Your task to perform on an android device: Open Youtube and go to "Your channel" Image 0: 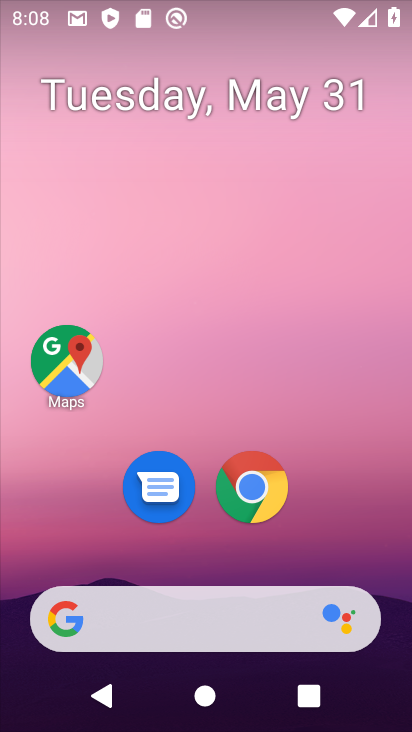
Step 0: drag from (147, 726) to (284, 105)
Your task to perform on an android device: Open Youtube and go to "Your channel" Image 1: 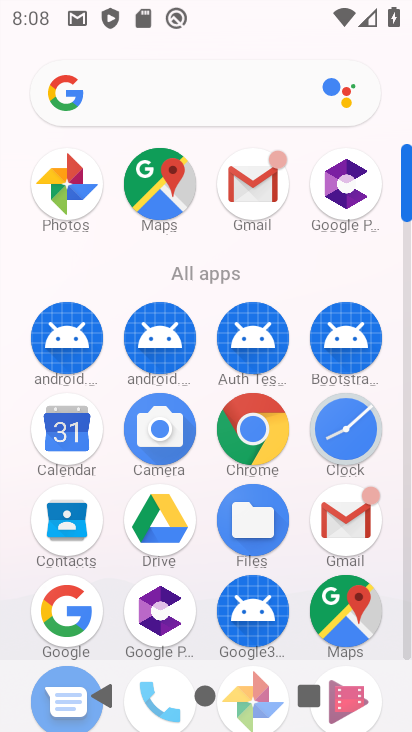
Step 1: drag from (308, 636) to (400, 310)
Your task to perform on an android device: Open Youtube and go to "Your channel" Image 2: 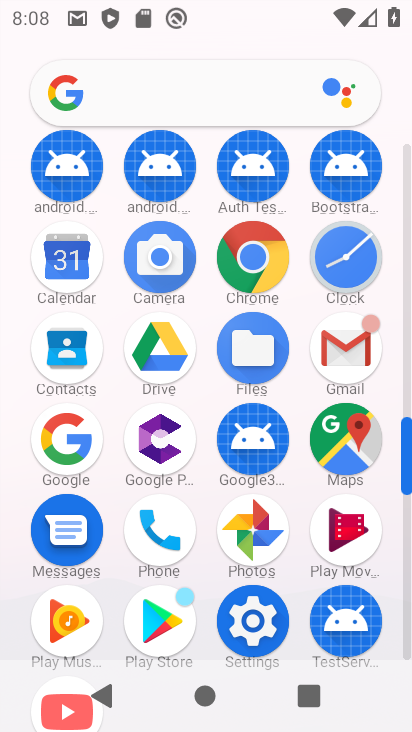
Step 2: drag from (124, 606) to (143, 299)
Your task to perform on an android device: Open Youtube and go to "Your channel" Image 3: 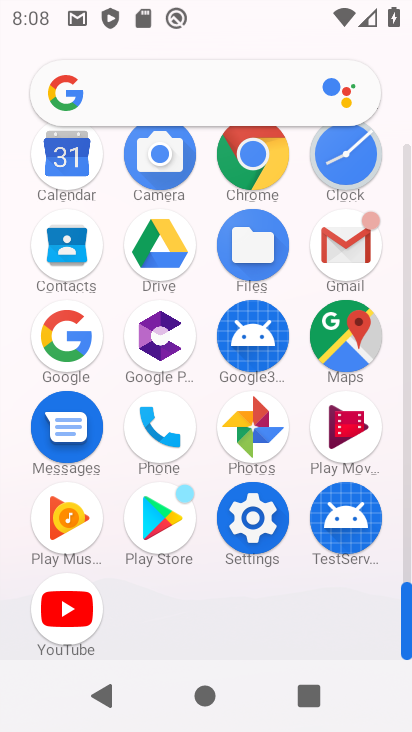
Step 3: click (79, 611)
Your task to perform on an android device: Open Youtube and go to "Your channel" Image 4: 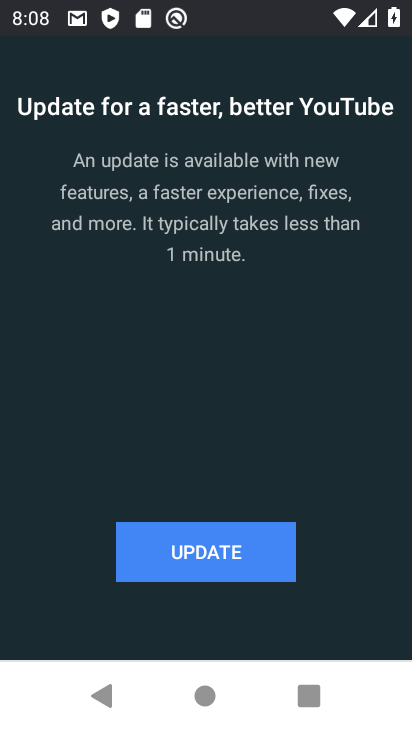
Step 4: click (142, 563)
Your task to perform on an android device: Open Youtube and go to "Your channel" Image 5: 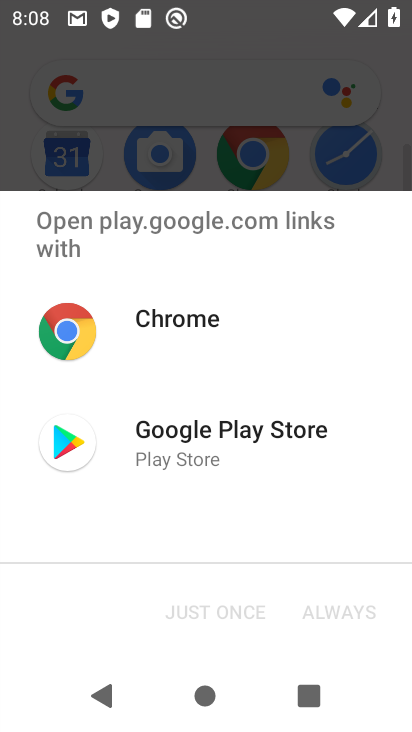
Step 5: click (239, 451)
Your task to perform on an android device: Open Youtube and go to "Your channel" Image 6: 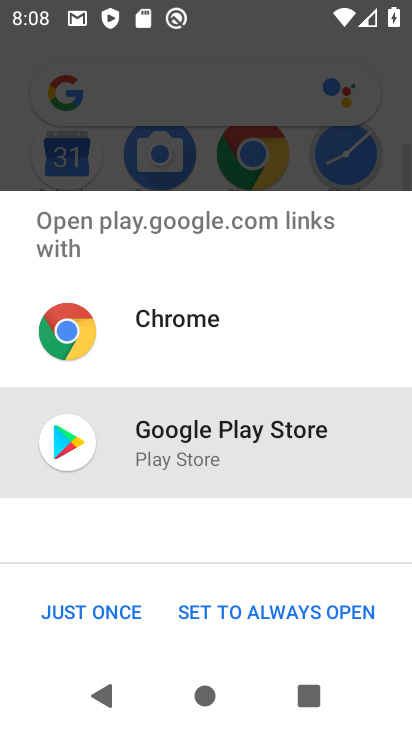
Step 6: click (71, 605)
Your task to perform on an android device: Open Youtube and go to "Your channel" Image 7: 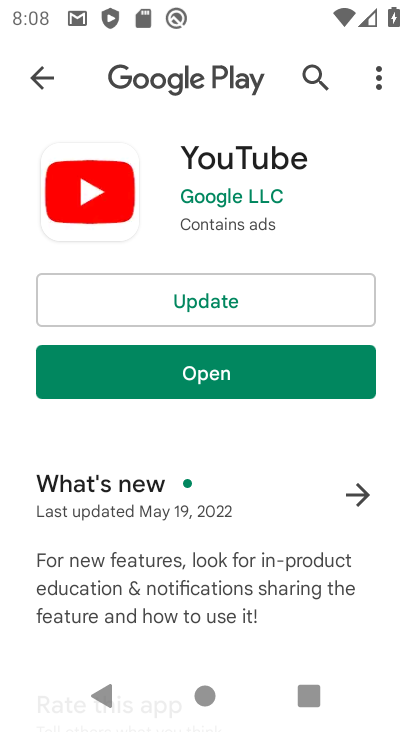
Step 7: click (276, 307)
Your task to perform on an android device: Open Youtube and go to "Your channel" Image 8: 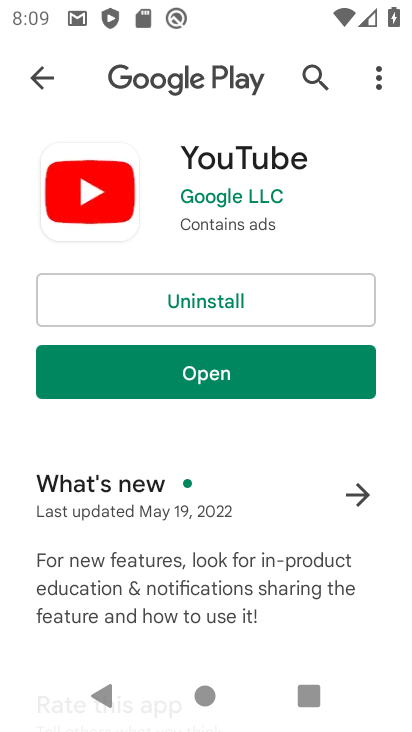
Step 8: click (306, 385)
Your task to perform on an android device: Open Youtube and go to "Your channel" Image 9: 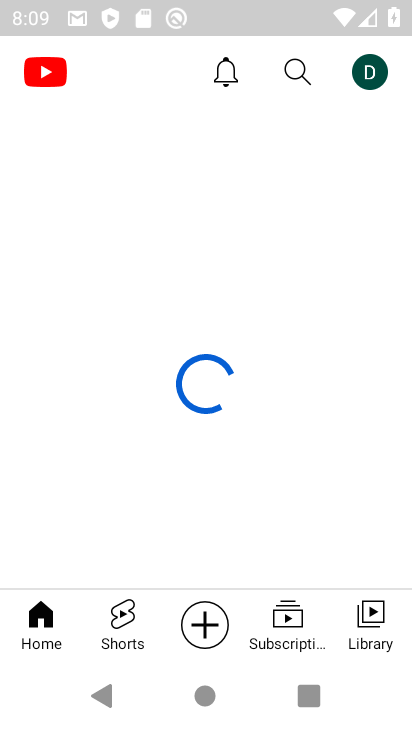
Step 9: click (371, 66)
Your task to perform on an android device: Open Youtube and go to "Your channel" Image 10: 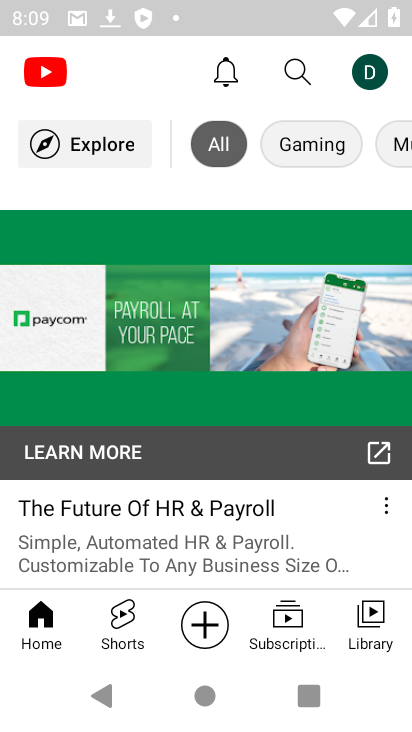
Step 10: click (355, 77)
Your task to perform on an android device: Open Youtube and go to "Your channel" Image 11: 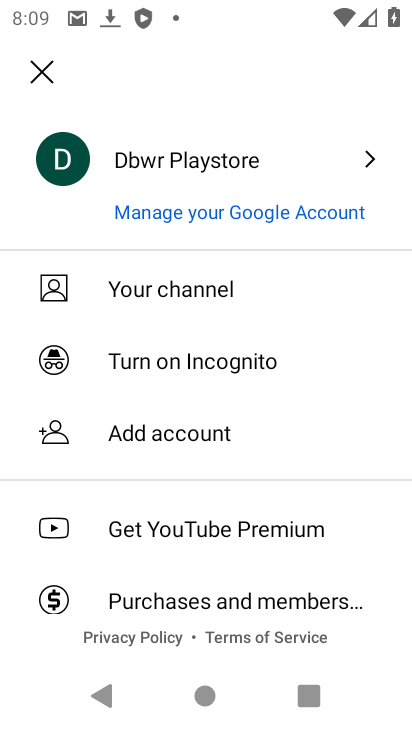
Step 11: click (243, 298)
Your task to perform on an android device: Open Youtube and go to "Your channel" Image 12: 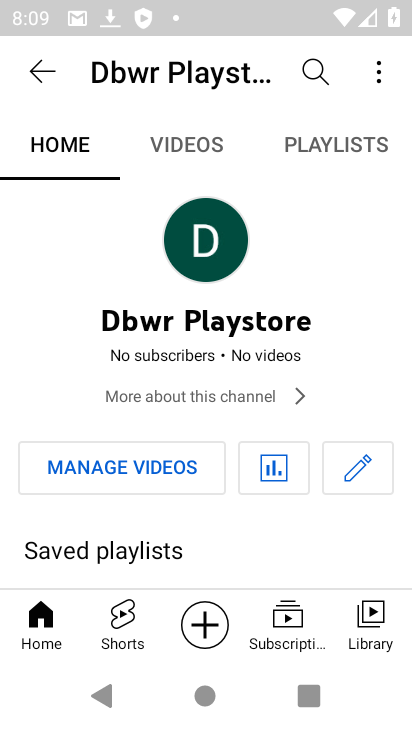
Step 12: task complete